Your task to perform on an android device: Open settings Image 0: 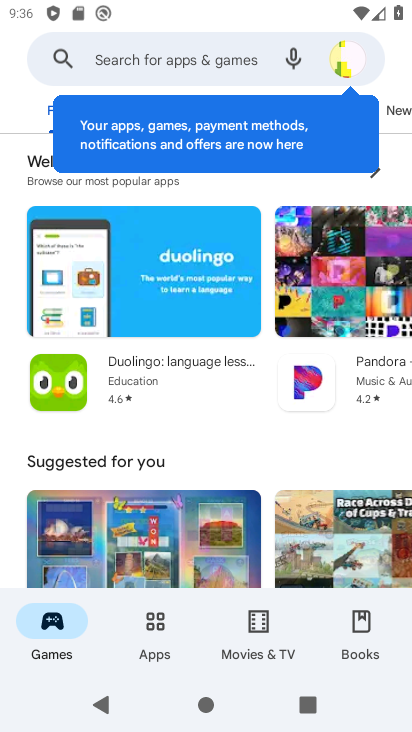
Step 0: press back button
Your task to perform on an android device: Open settings Image 1: 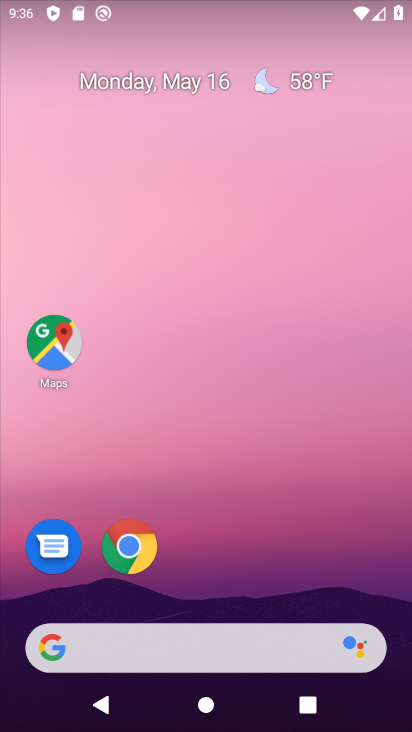
Step 1: drag from (249, 530) to (227, 117)
Your task to perform on an android device: Open settings Image 2: 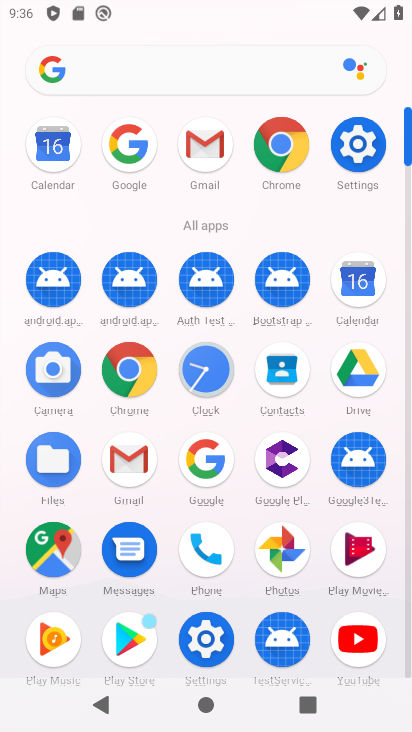
Step 2: click (357, 145)
Your task to perform on an android device: Open settings Image 3: 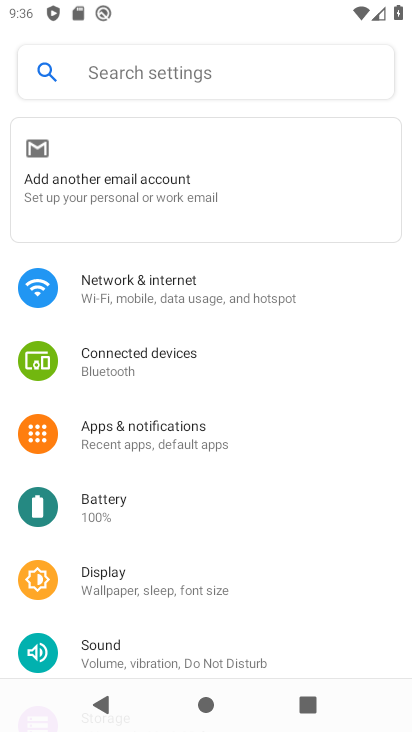
Step 3: task complete